Your task to perform on an android device: uninstall "Facebook" Image 0: 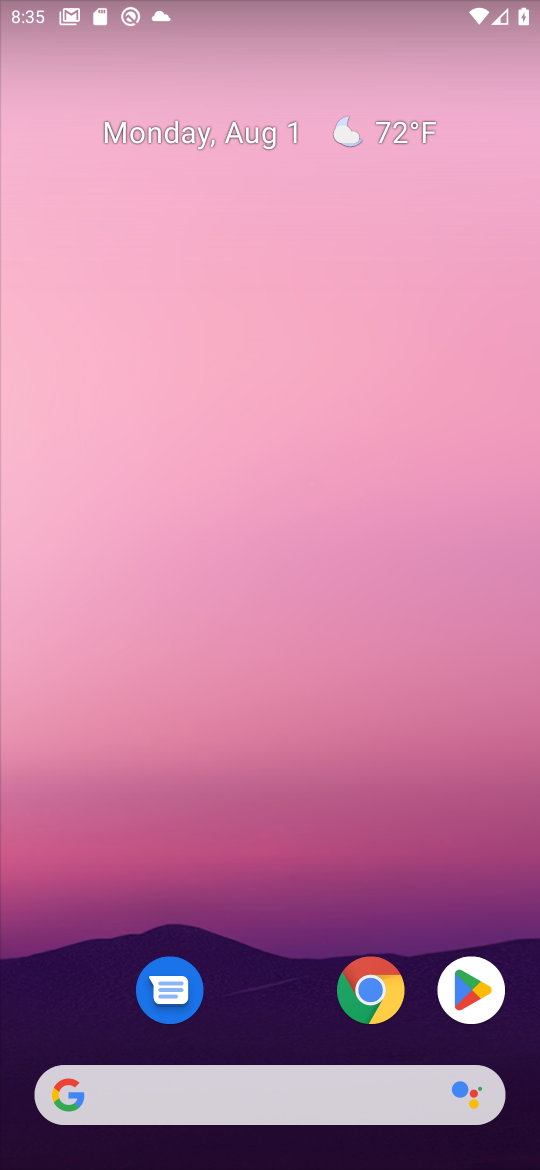
Step 0: click (485, 992)
Your task to perform on an android device: uninstall "Facebook" Image 1: 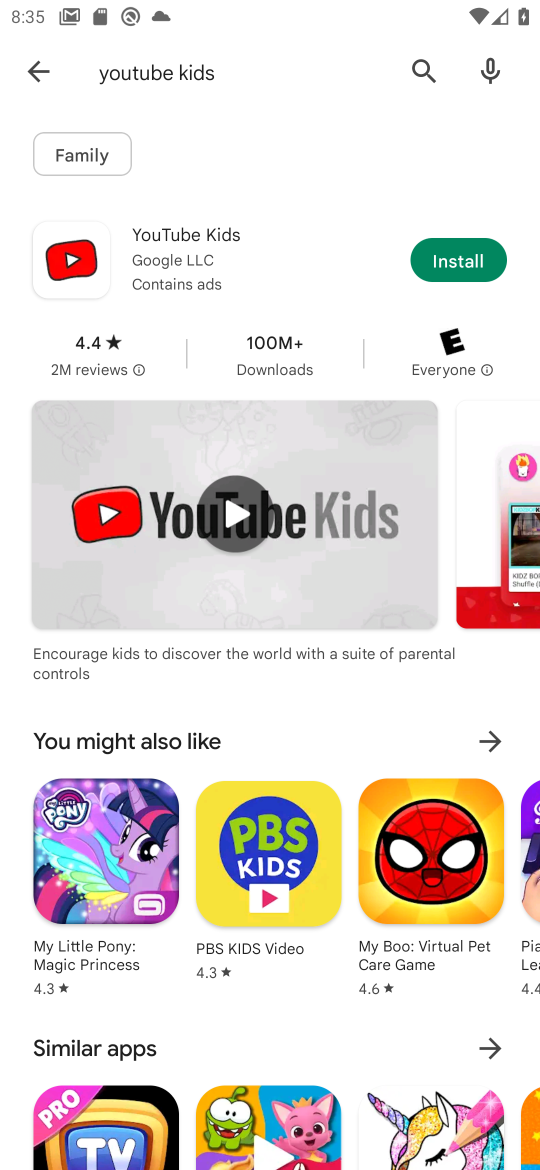
Step 1: click (420, 66)
Your task to perform on an android device: uninstall "Facebook" Image 2: 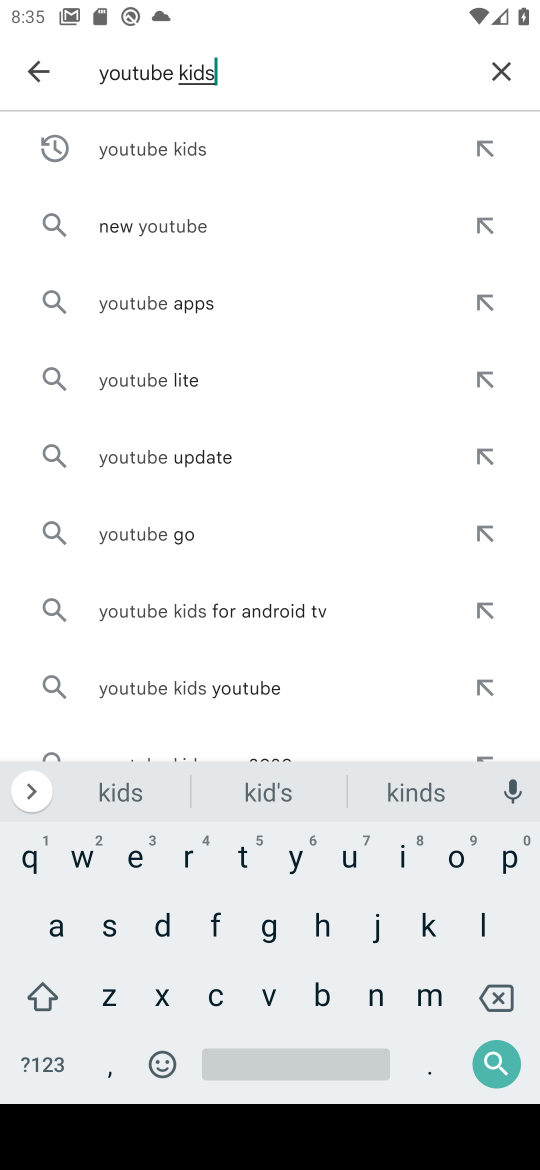
Step 2: click (500, 66)
Your task to perform on an android device: uninstall "Facebook" Image 3: 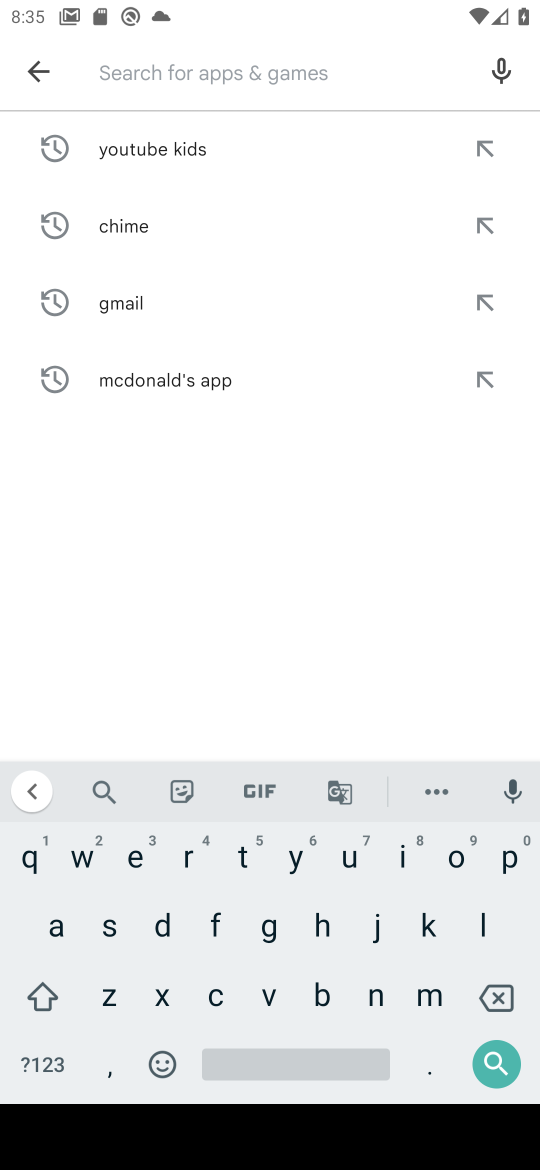
Step 3: click (208, 914)
Your task to perform on an android device: uninstall "Facebook" Image 4: 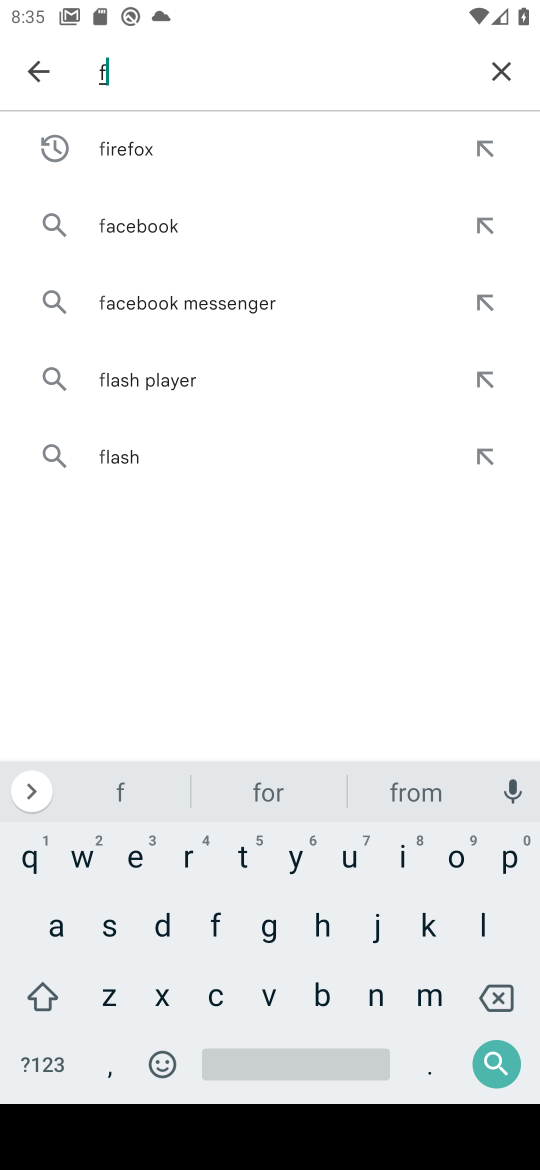
Step 4: click (44, 913)
Your task to perform on an android device: uninstall "Facebook" Image 5: 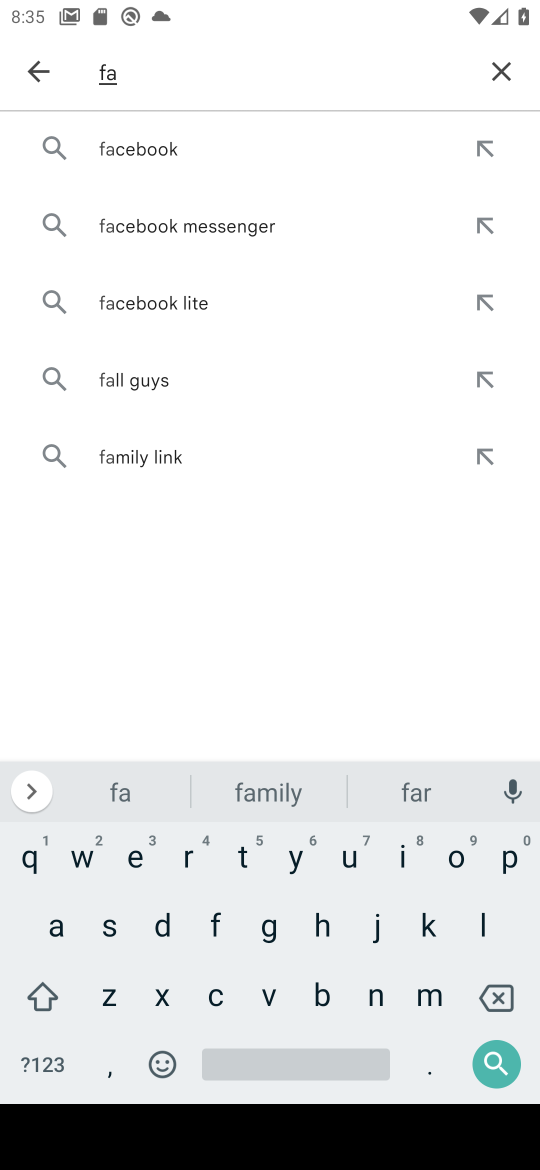
Step 5: click (206, 990)
Your task to perform on an android device: uninstall "Facebook" Image 6: 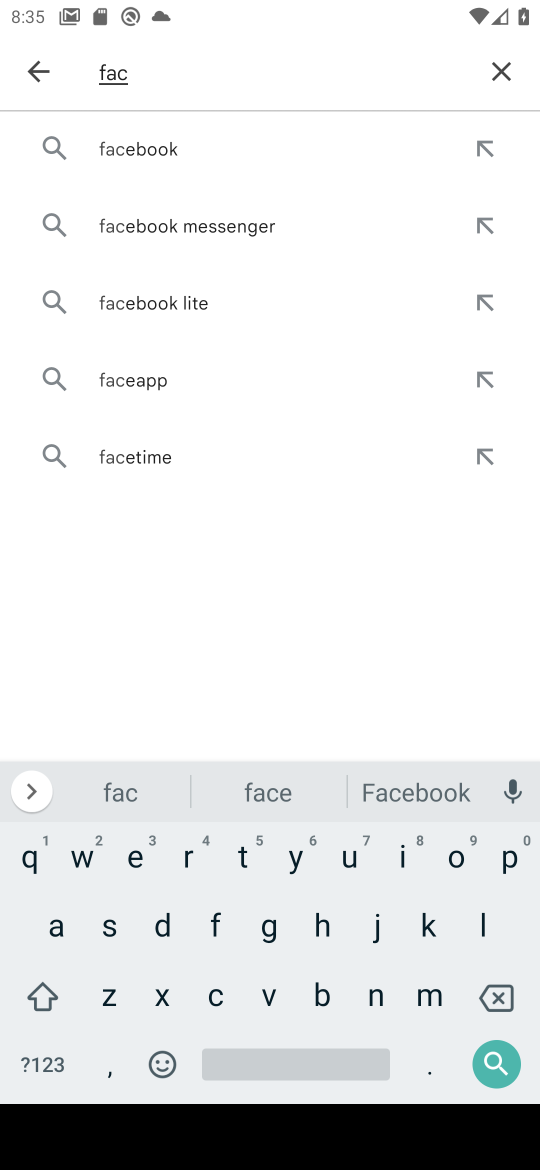
Step 6: click (170, 152)
Your task to perform on an android device: uninstall "Facebook" Image 7: 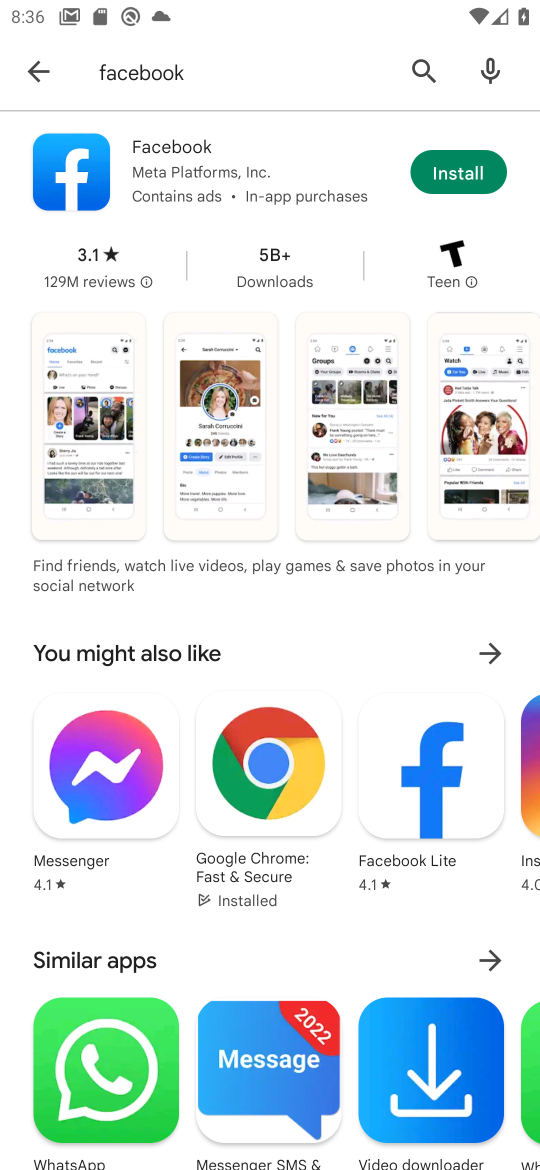
Step 7: task complete